Your task to perform on an android device: Go to CNN.com Image 0: 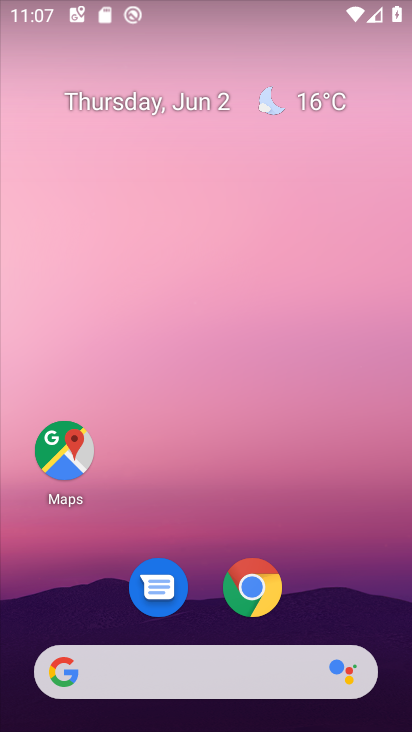
Step 0: click (223, 674)
Your task to perform on an android device: Go to CNN.com Image 1: 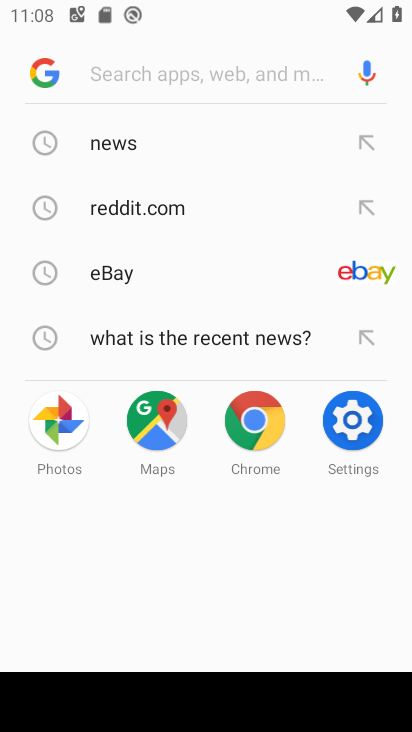
Step 1: type "cnn.com"
Your task to perform on an android device: Go to CNN.com Image 2: 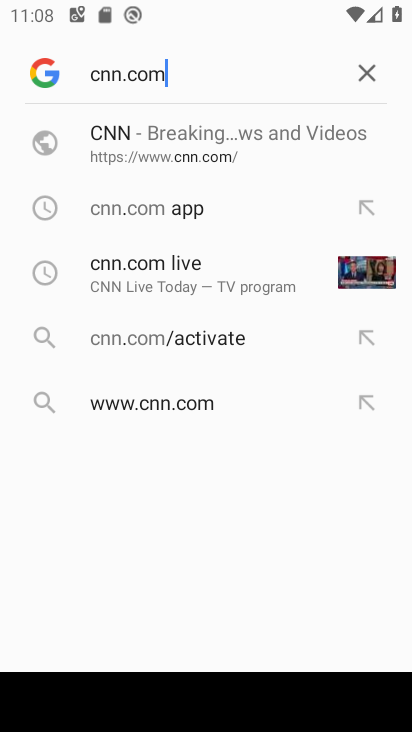
Step 2: click (126, 145)
Your task to perform on an android device: Go to CNN.com Image 3: 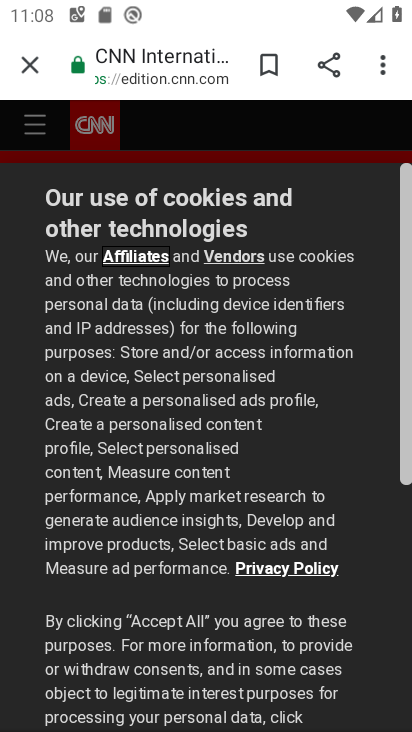
Step 3: task complete